Your task to perform on an android device: Go to notification settings Image 0: 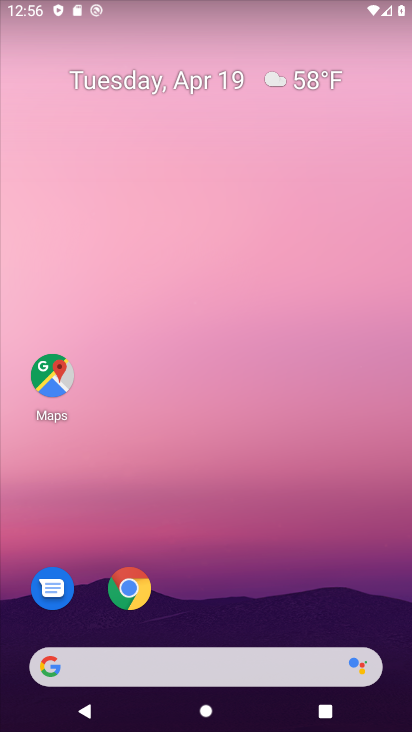
Step 0: drag from (218, 604) to (220, 220)
Your task to perform on an android device: Go to notification settings Image 1: 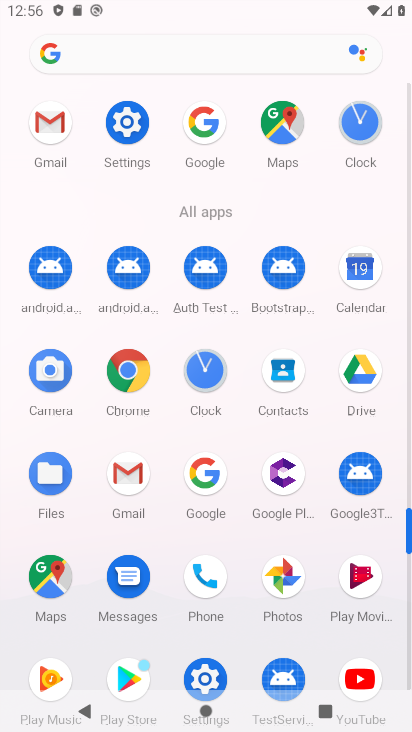
Step 1: click (207, 671)
Your task to perform on an android device: Go to notification settings Image 2: 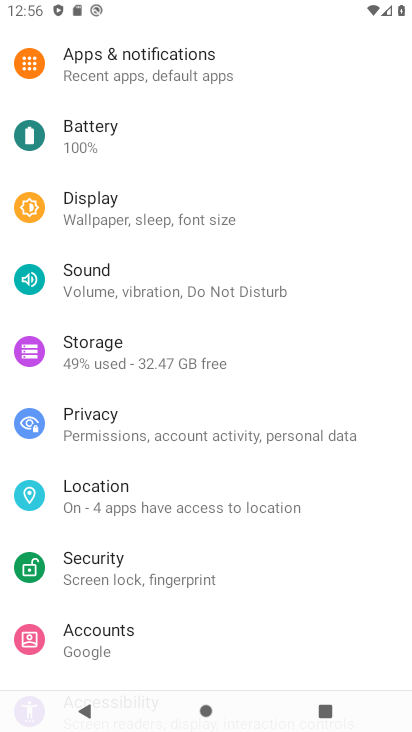
Step 2: click (184, 81)
Your task to perform on an android device: Go to notification settings Image 3: 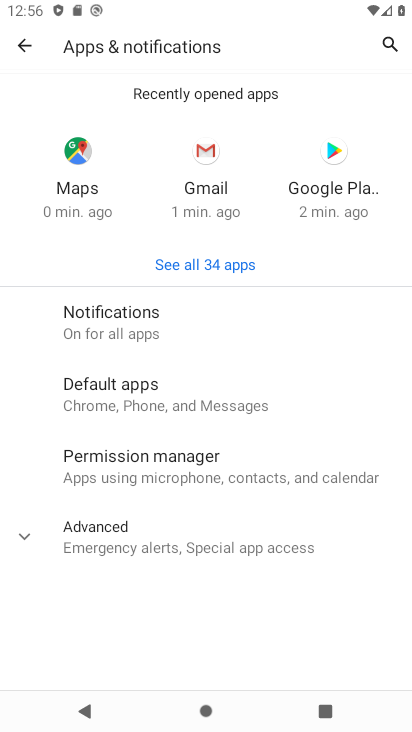
Step 3: click (175, 318)
Your task to perform on an android device: Go to notification settings Image 4: 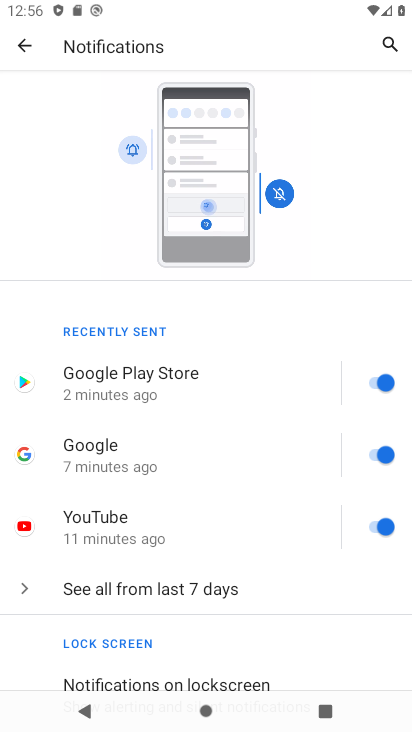
Step 4: drag from (238, 558) to (177, 167)
Your task to perform on an android device: Go to notification settings Image 5: 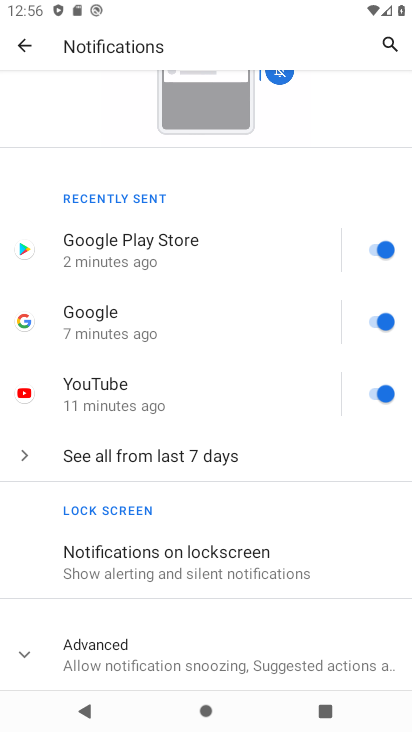
Step 5: drag from (175, 637) to (207, 458)
Your task to perform on an android device: Go to notification settings Image 6: 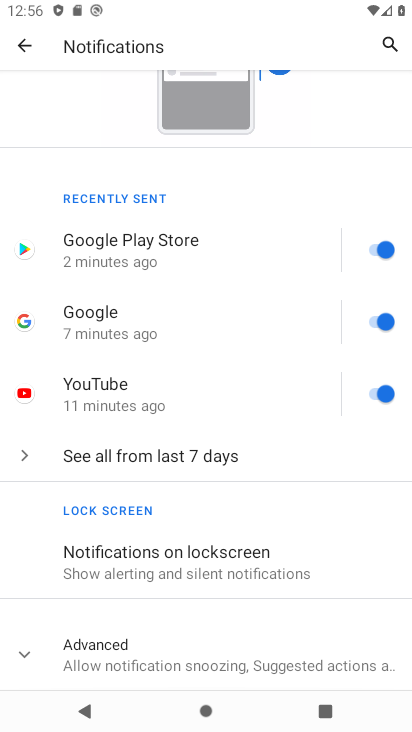
Step 6: click (184, 666)
Your task to perform on an android device: Go to notification settings Image 7: 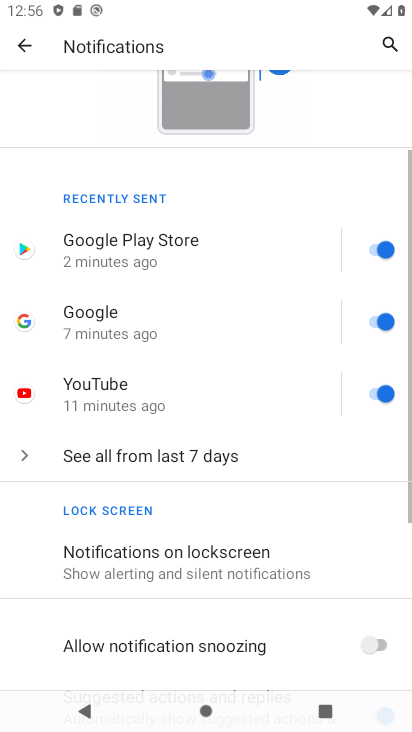
Step 7: task complete